Your task to perform on an android device: Open Android settings Image 0: 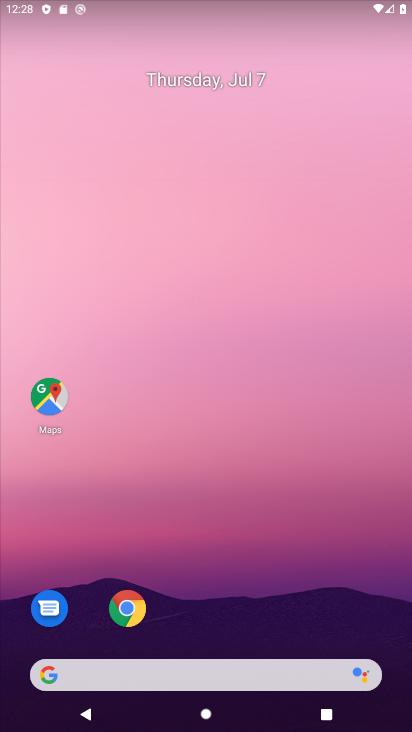
Step 0: click (325, 82)
Your task to perform on an android device: Open Android settings Image 1: 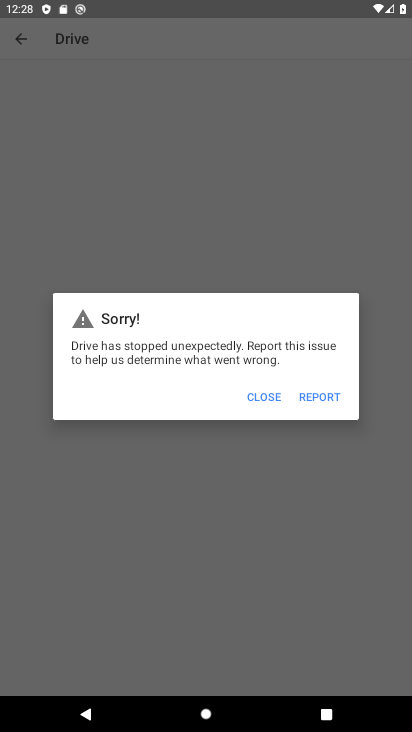
Step 1: press home button
Your task to perform on an android device: Open Android settings Image 2: 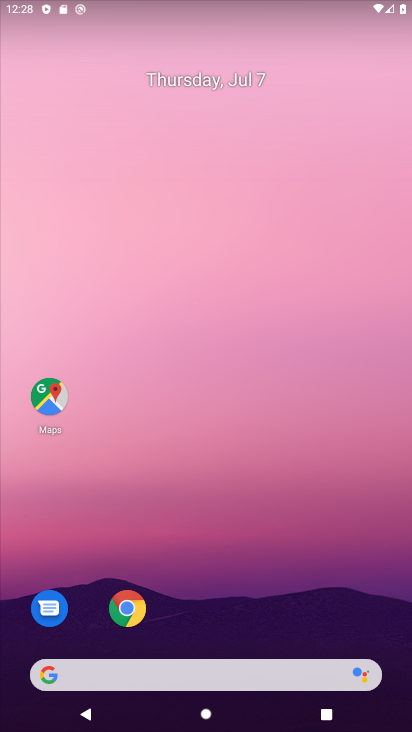
Step 2: drag from (206, 650) to (250, 50)
Your task to perform on an android device: Open Android settings Image 3: 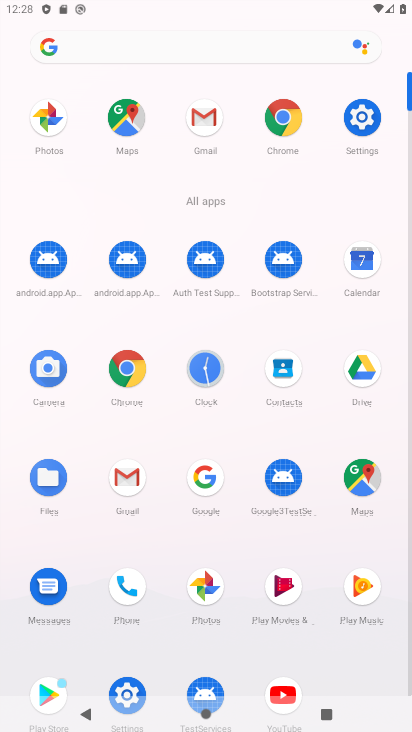
Step 3: click (122, 677)
Your task to perform on an android device: Open Android settings Image 4: 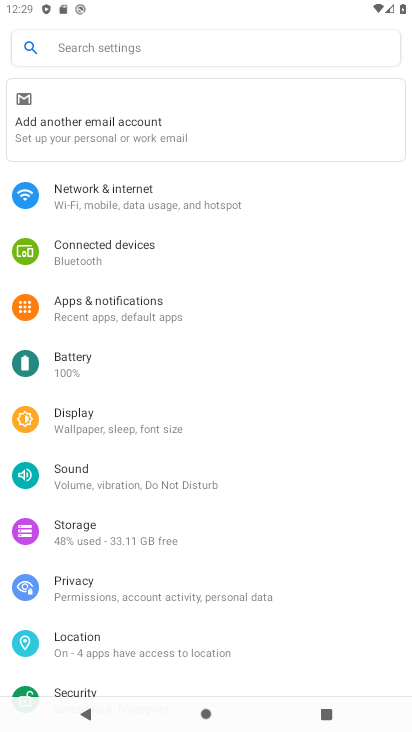
Step 4: task complete